Your task to perform on an android device: check android version Image 0: 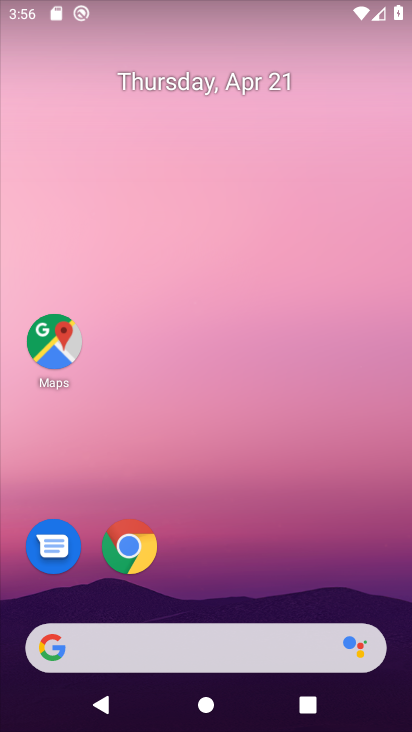
Step 0: click (44, 653)
Your task to perform on an android device: check android version Image 1: 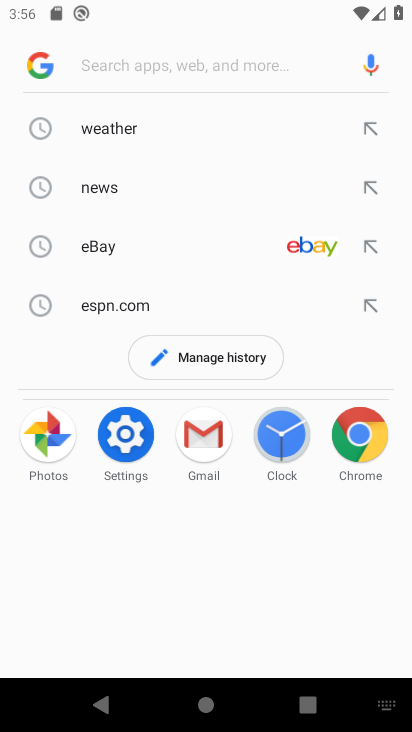
Step 1: click (38, 58)
Your task to perform on an android device: check android version Image 2: 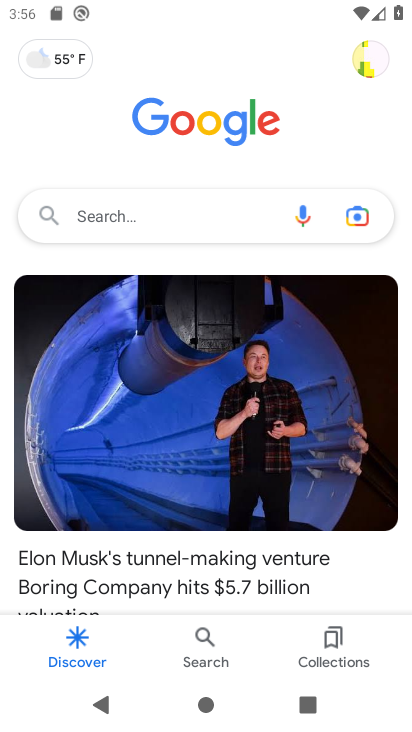
Step 2: drag from (282, 571) to (330, 135)
Your task to perform on an android device: check android version Image 3: 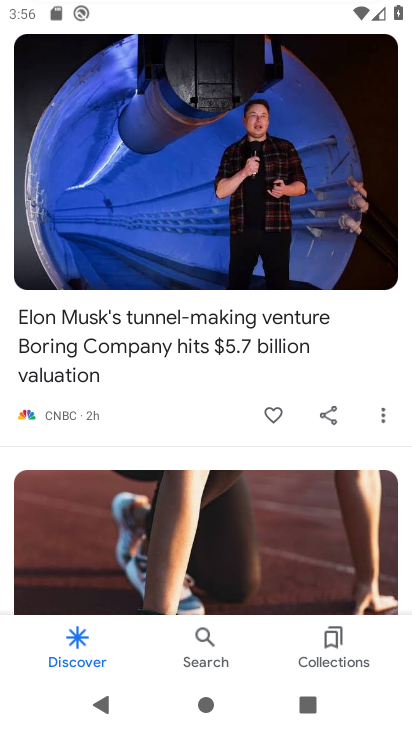
Step 3: drag from (251, 580) to (263, 213)
Your task to perform on an android device: check android version Image 4: 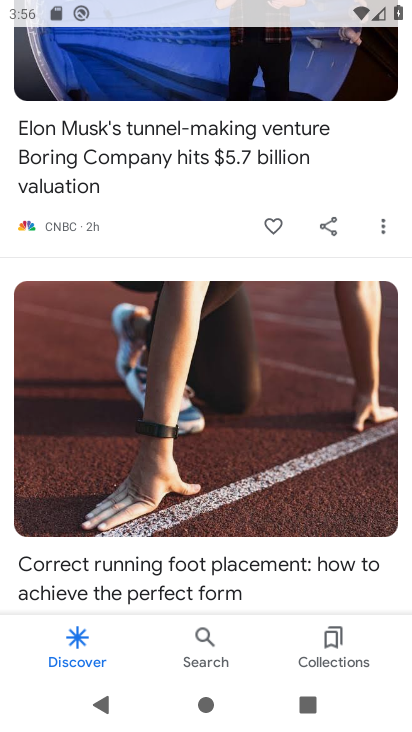
Step 4: drag from (231, 198) to (251, 661)
Your task to perform on an android device: check android version Image 5: 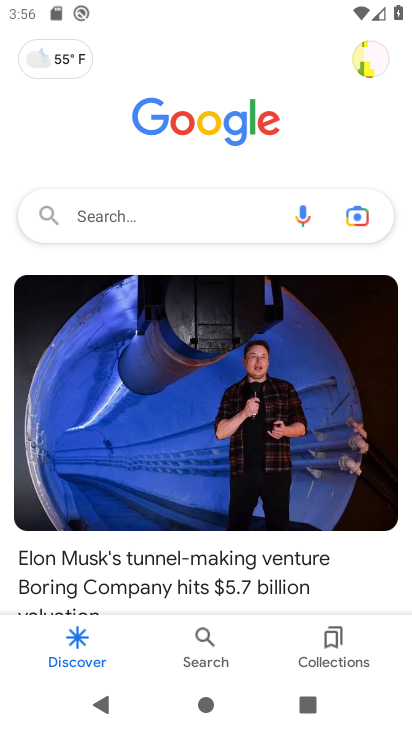
Step 5: click (369, 62)
Your task to perform on an android device: check android version Image 6: 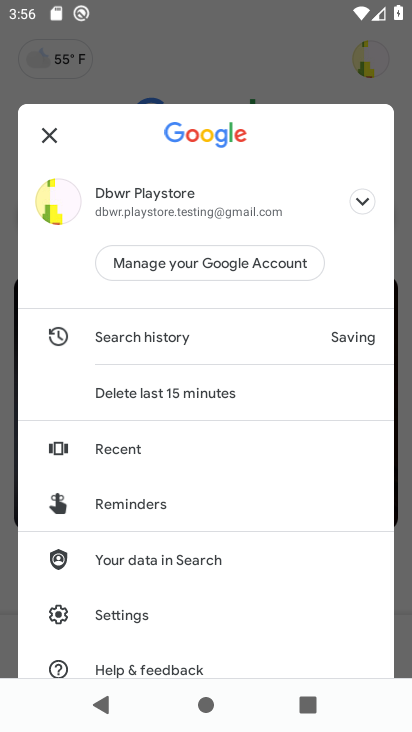
Step 6: click (104, 610)
Your task to perform on an android device: check android version Image 7: 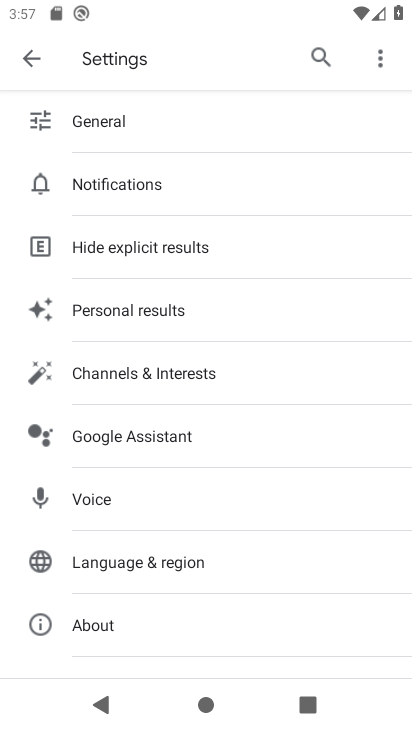
Step 7: click (112, 636)
Your task to perform on an android device: check android version Image 8: 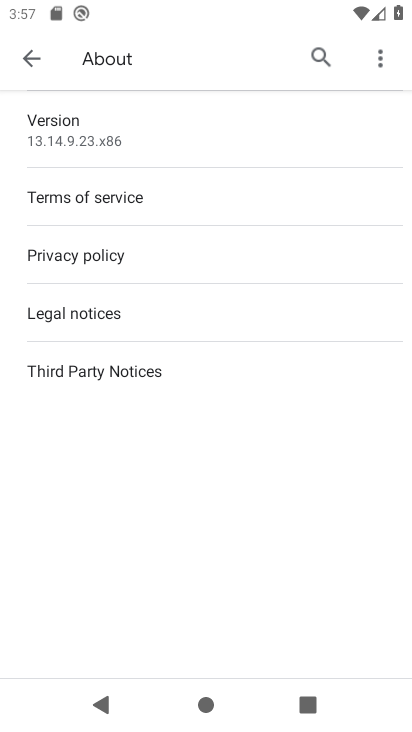
Step 8: task complete